Your task to perform on an android device: Set the phone to "Do not disturb". Image 0: 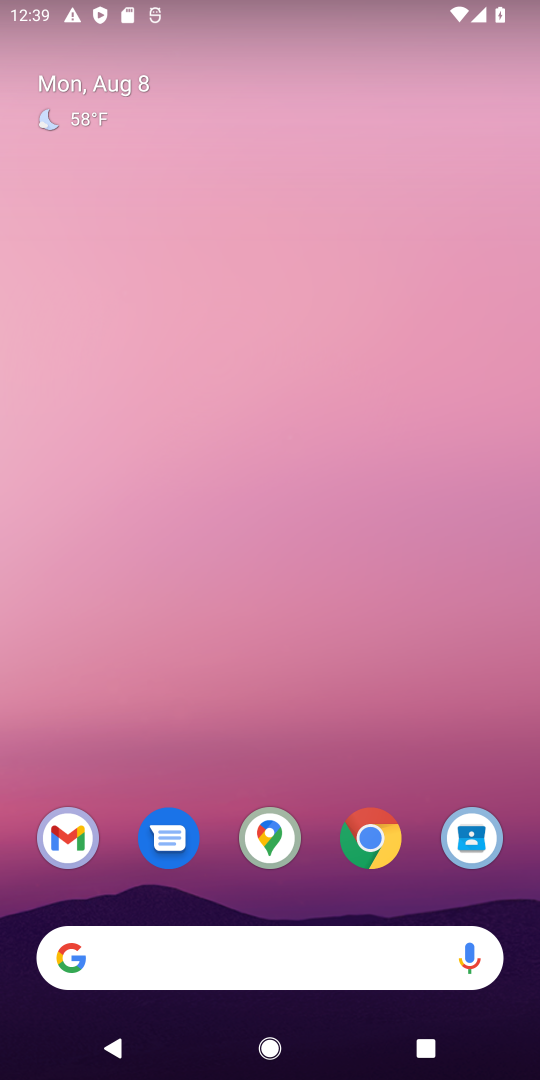
Step 0: press home button
Your task to perform on an android device: Set the phone to "Do not disturb". Image 1: 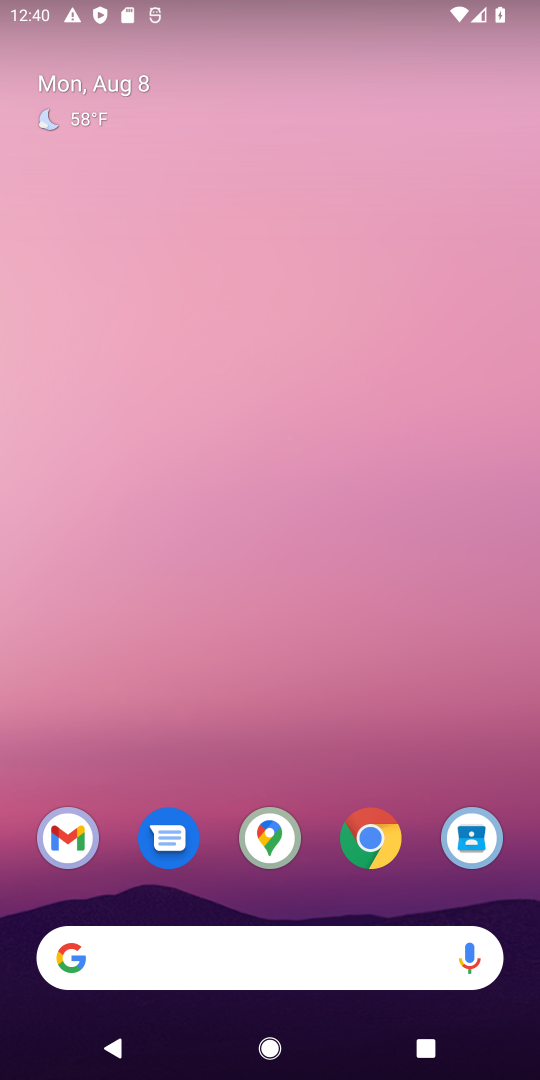
Step 1: drag from (427, 2) to (332, 660)
Your task to perform on an android device: Set the phone to "Do not disturb". Image 2: 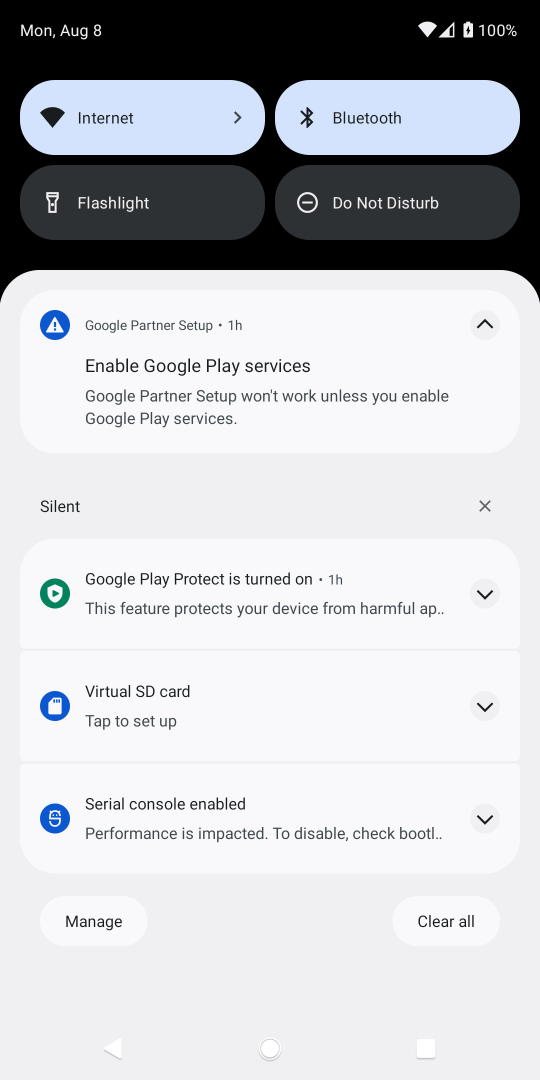
Step 2: click (380, 198)
Your task to perform on an android device: Set the phone to "Do not disturb". Image 3: 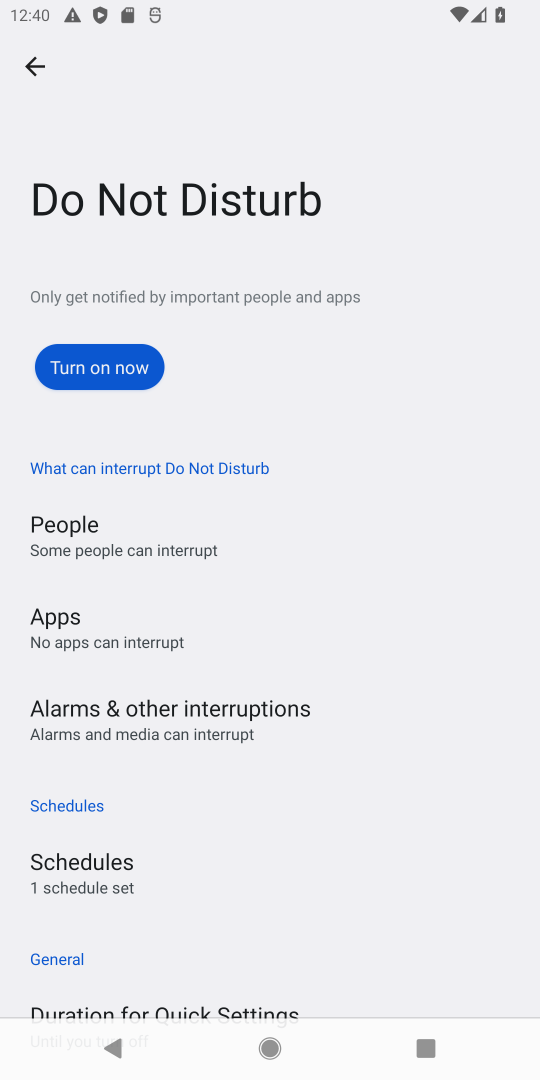
Step 3: click (117, 360)
Your task to perform on an android device: Set the phone to "Do not disturb". Image 4: 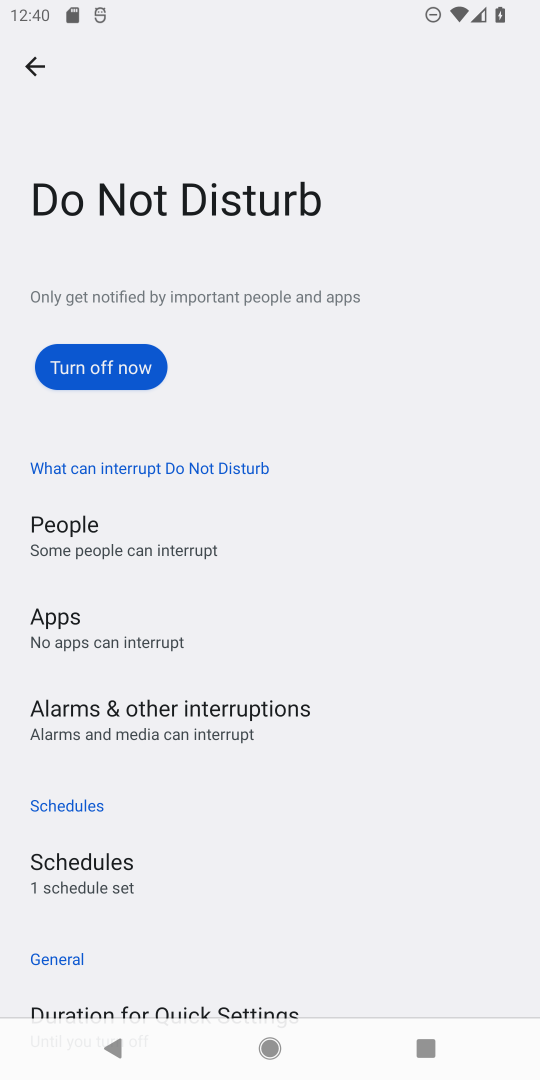
Step 4: task complete